Your task to perform on an android device: Open Yahoo.com Image 0: 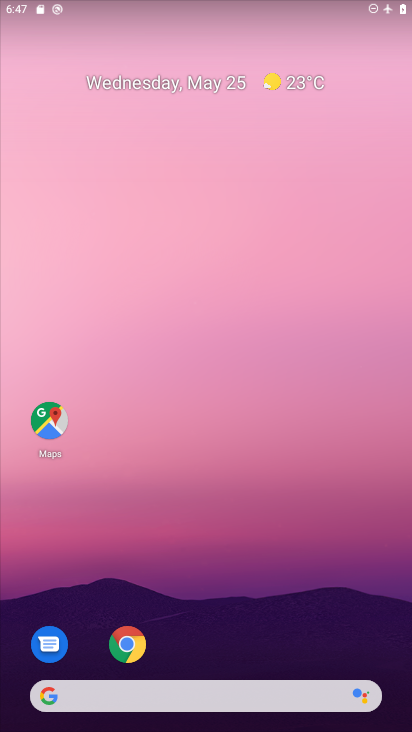
Step 0: drag from (333, 628) to (294, 11)
Your task to perform on an android device: Open Yahoo.com Image 1: 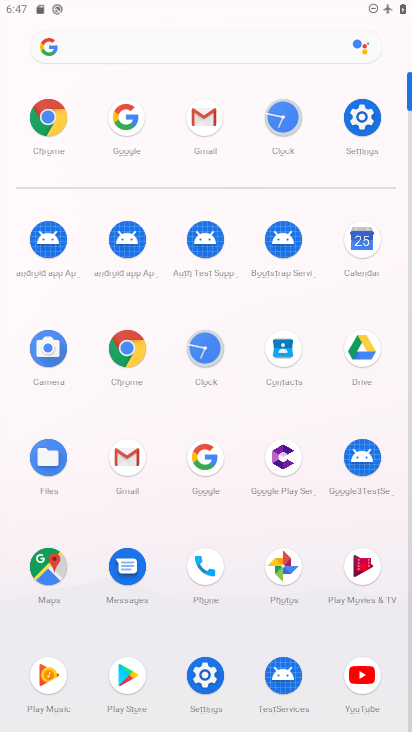
Step 1: click (189, 480)
Your task to perform on an android device: Open Yahoo.com Image 2: 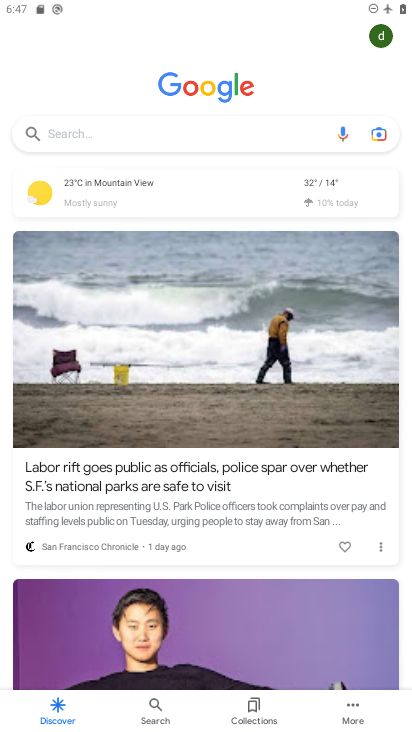
Step 2: click (165, 123)
Your task to perform on an android device: Open Yahoo.com Image 3: 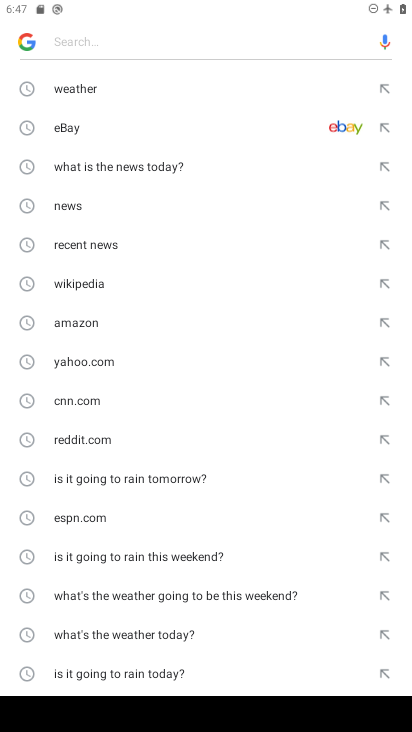
Step 3: click (72, 389)
Your task to perform on an android device: Open Yahoo.com Image 4: 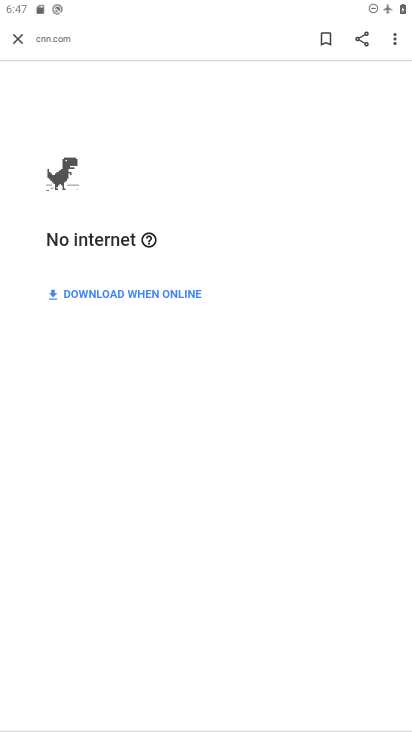
Step 4: press back button
Your task to perform on an android device: Open Yahoo.com Image 5: 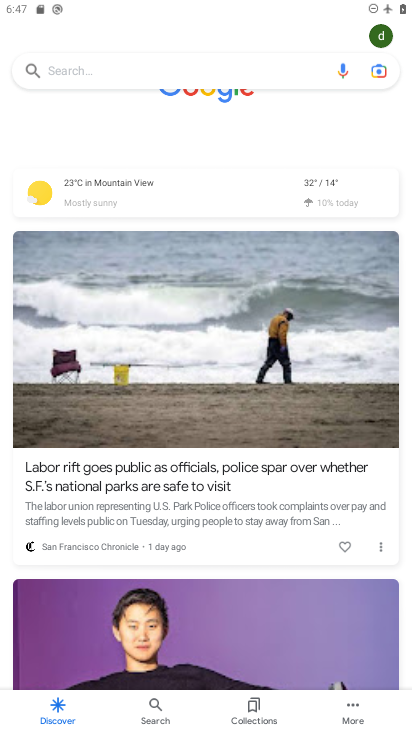
Step 5: click (217, 70)
Your task to perform on an android device: Open Yahoo.com Image 6: 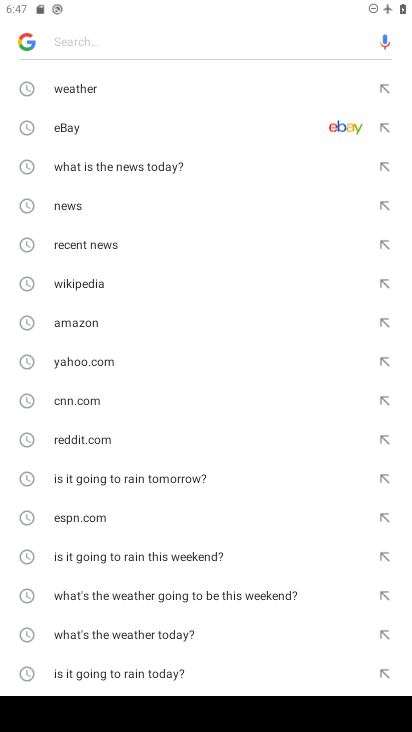
Step 6: click (103, 359)
Your task to perform on an android device: Open Yahoo.com Image 7: 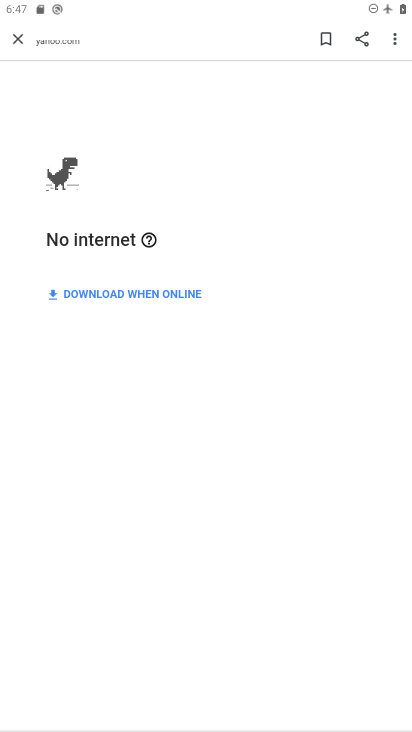
Step 7: task complete